Your task to perform on an android device: Open the stopwatch Image 0: 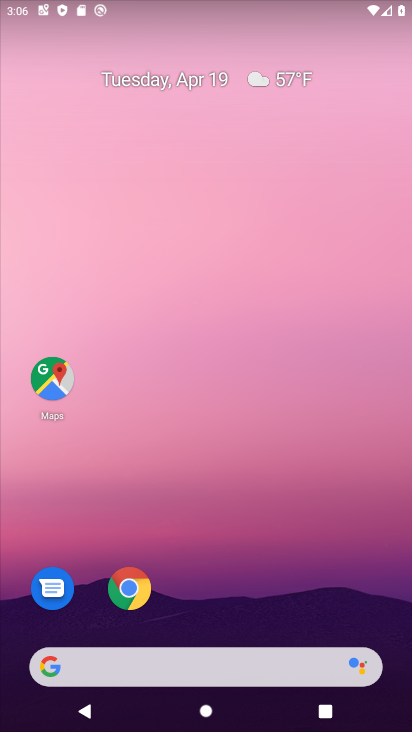
Step 0: drag from (246, 233) to (137, 586)
Your task to perform on an android device: Open the stopwatch Image 1: 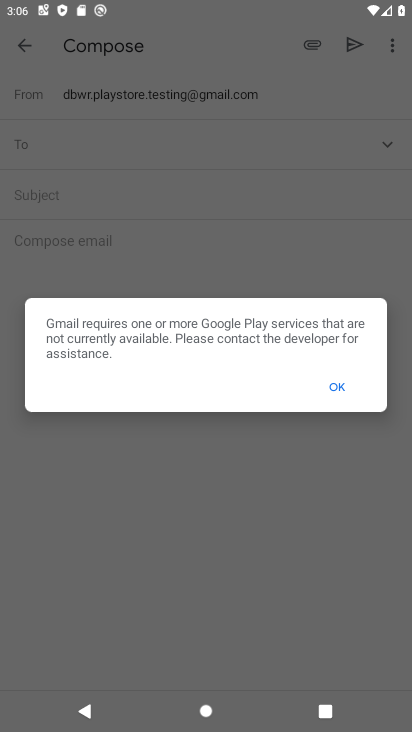
Step 1: press home button
Your task to perform on an android device: Open the stopwatch Image 2: 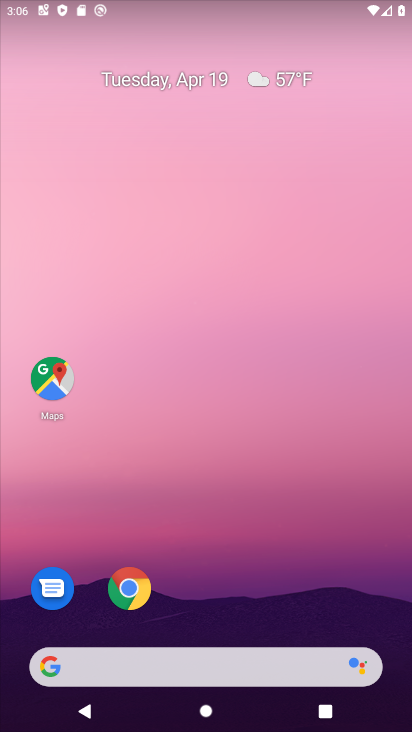
Step 2: drag from (201, 538) to (232, 279)
Your task to perform on an android device: Open the stopwatch Image 3: 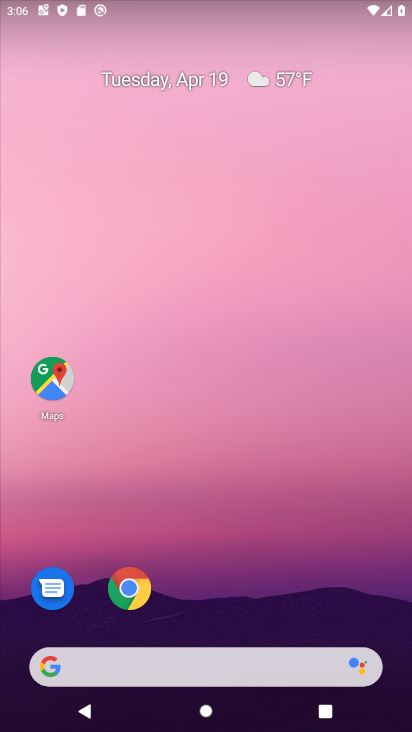
Step 3: drag from (201, 588) to (215, 382)
Your task to perform on an android device: Open the stopwatch Image 4: 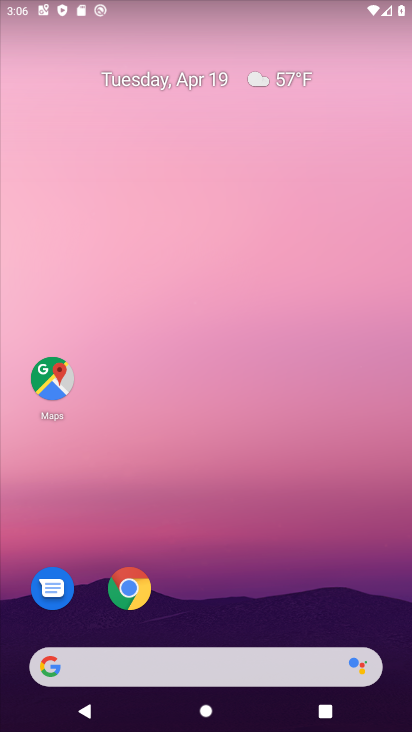
Step 4: drag from (236, 630) to (263, 123)
Your task to perform on an android device: Open the stopwatch Image 5: 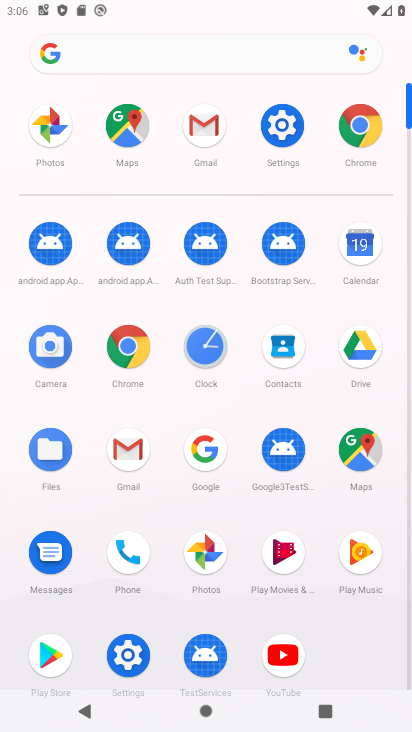
Step 5: click (209, 351)
Your task to perform on an android device: Open the stopwatch Image 6: 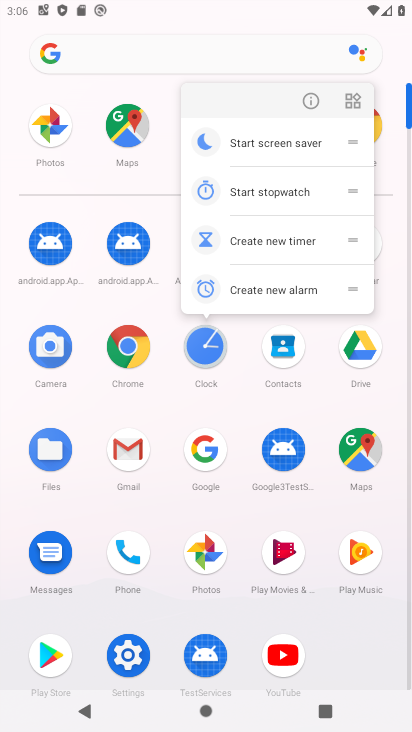
Step 6: click (309, 104)
Your task to perform on an android device: Open the stopwatch Image 7: 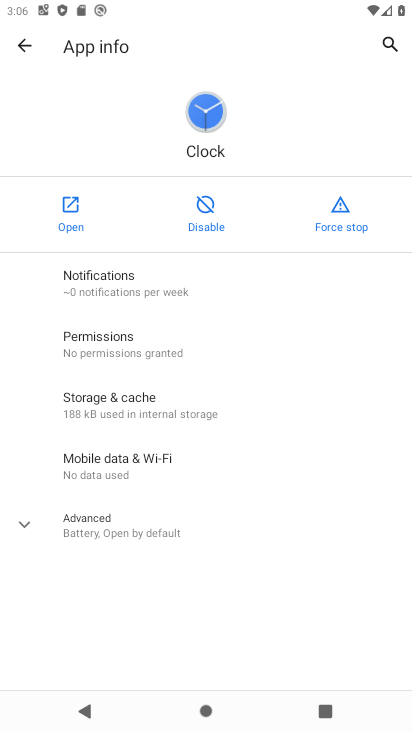
Step 7: click (92, 219)
Your task to perform on an android device: Open the stopwatch Image 8: 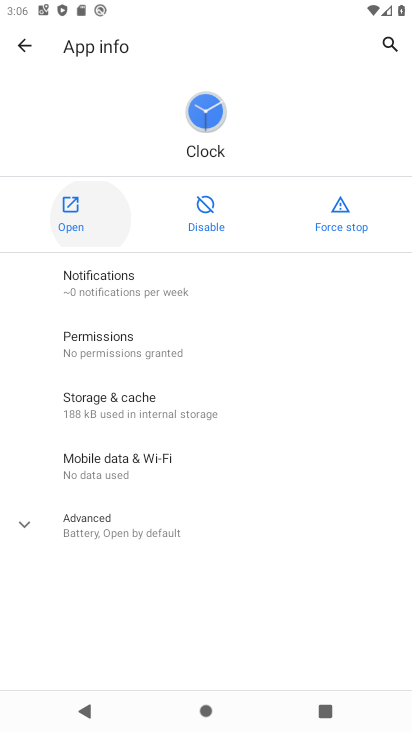
Step 8: click (85, 216)
Your task to perform on an android device: Open the stopwatch Image 9: 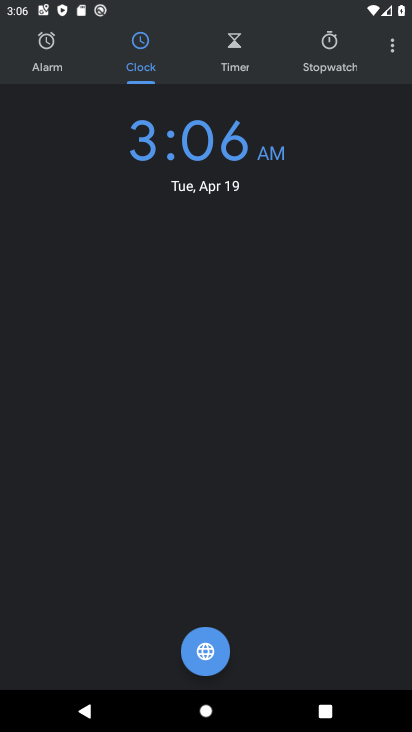
Step 9: click (333, 53)
Your task to perform on an android device: Open the stopwatch Image 10: 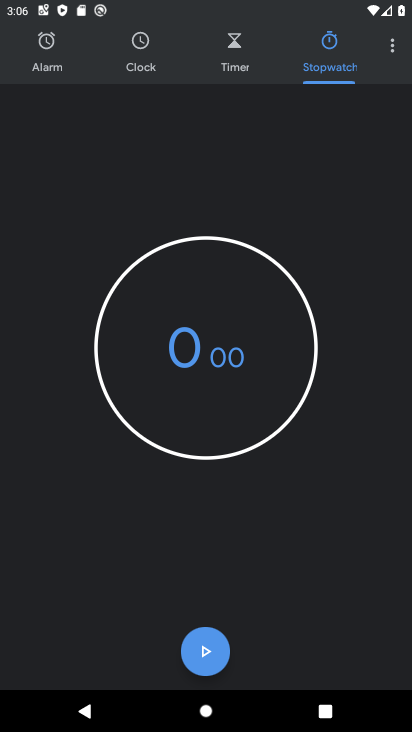
Step 10: click (224, 659)
Your task to perform on an android device: Open the stopwatch Image 11: 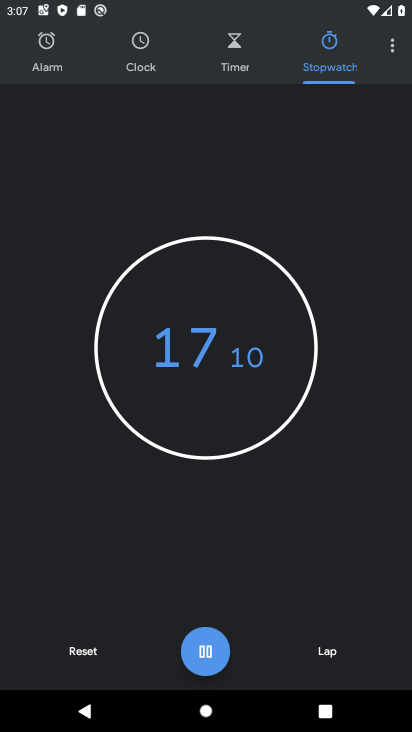
Step 11: task complete